Your task to perform on an android device: Go to sound settings Image 0: 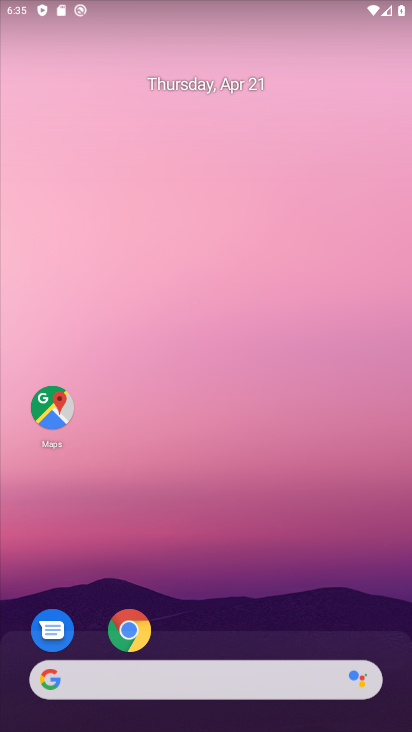
Step 0: drag from (219, 593) to (45, 127)
Your task to perform on an android device: Go to sound settings Image 1: 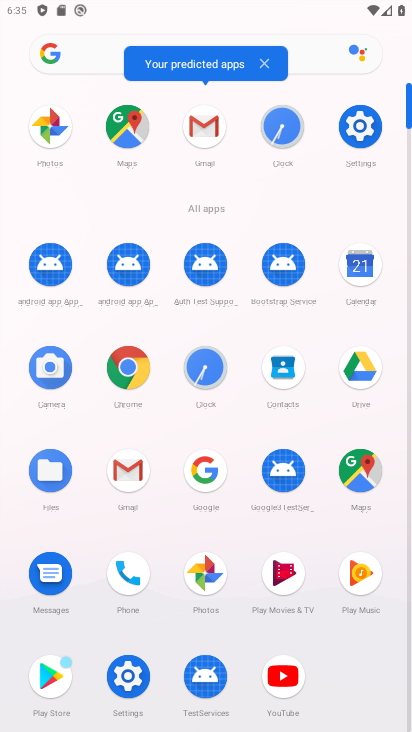
Step 1: click (353, 148)
Your task to perform on an android device: Go to sound settings Image 2: 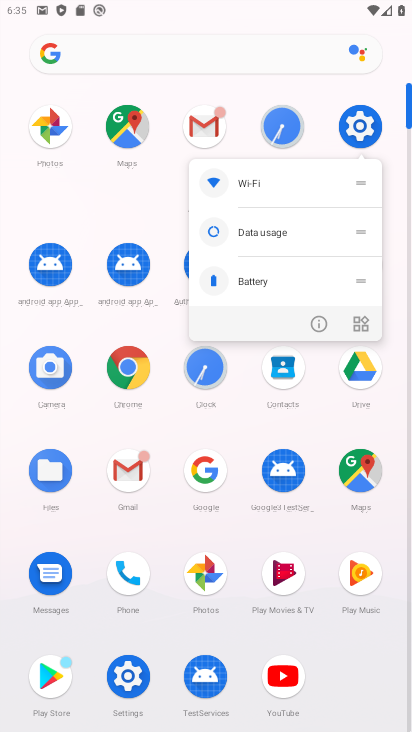
Step 2: click (344, 121)
Your task to perform on an android device: Go to sound settings Image 3: 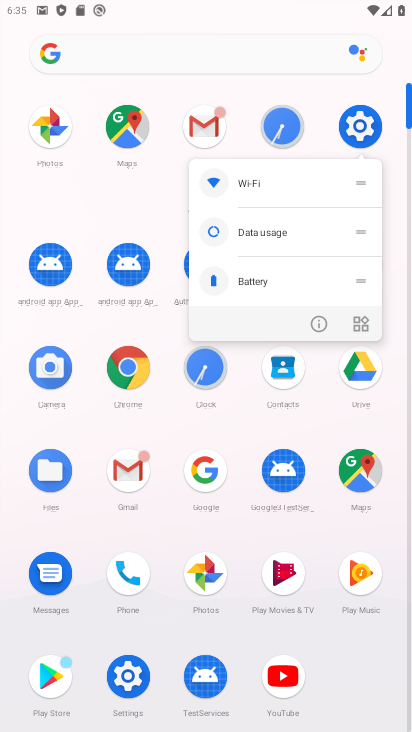
Step 3: click (366, 124)
Your task to perform on an android device: Go to sound settings Image 4: 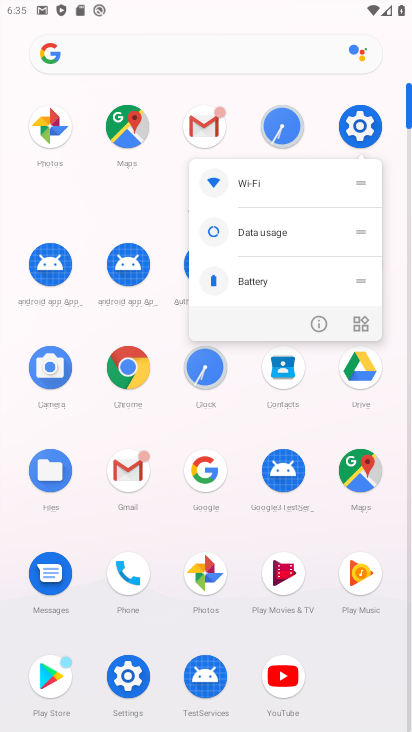
Step 4: click (360, 131)
Your task to perform on an android device: Go to sound settings Image 5: 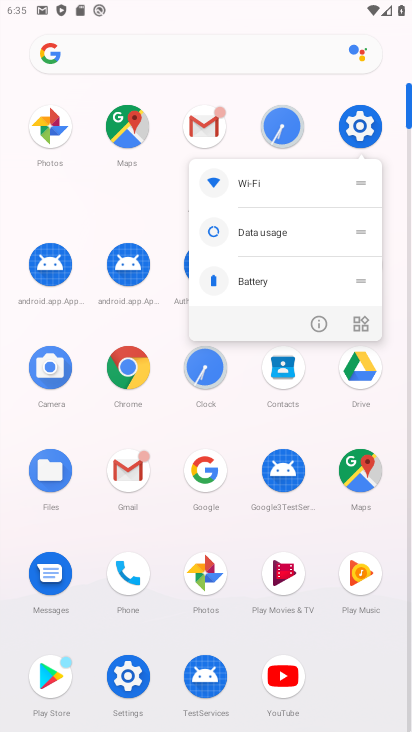
Step 5: click (360, 131)
Your task to perform on an android device: Go to sound settings Image 6: 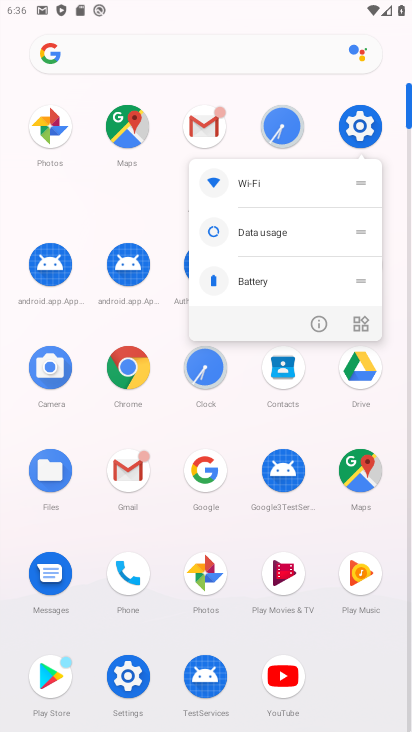
Step 6: click (357, 122)
Your task to perform on an android device: Go to sound settings Image 7: 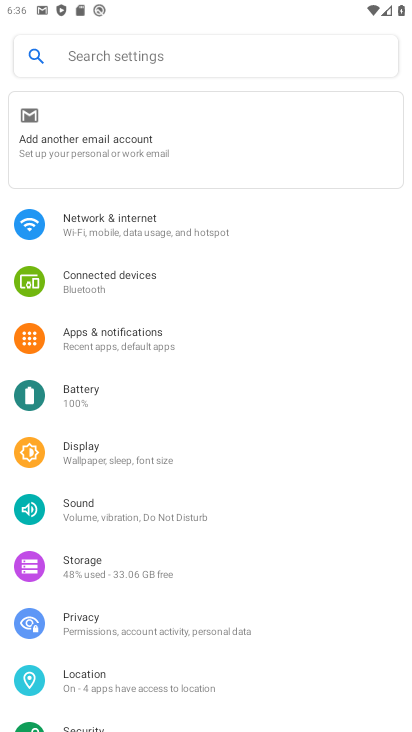
Step 7: click (87, 516)
Your task to perform on an android device: Go to sound settings Image 8: 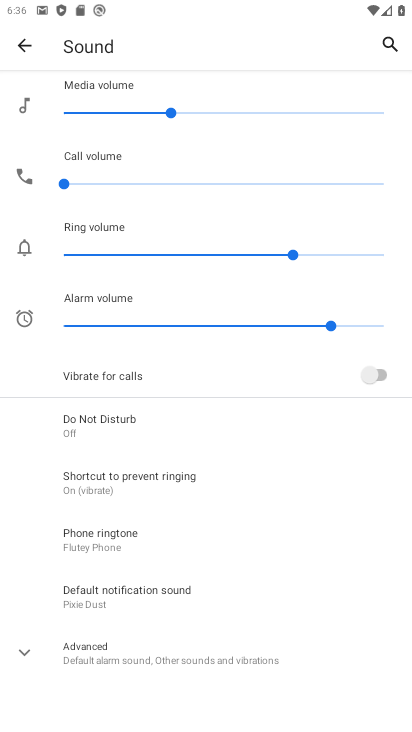
Step 8: task complete